Your task to perform on an android device: delete the emails in spam in the gmail app Image 0: 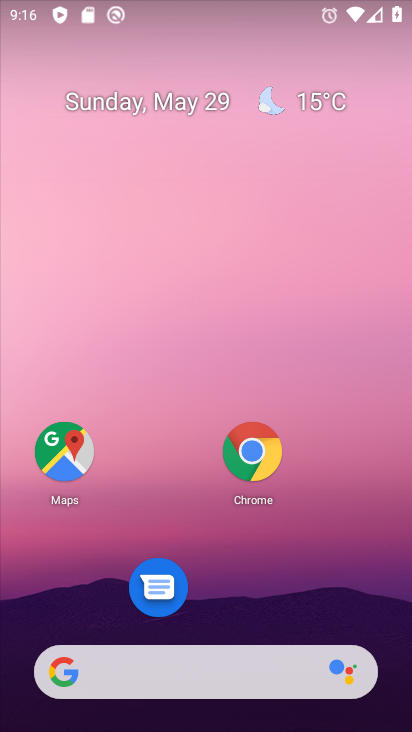
Step 0: drag from (221, 613) to (182, 102)
Your task to perform on an android device: delete the emails in spam in the gmail app Image 1: 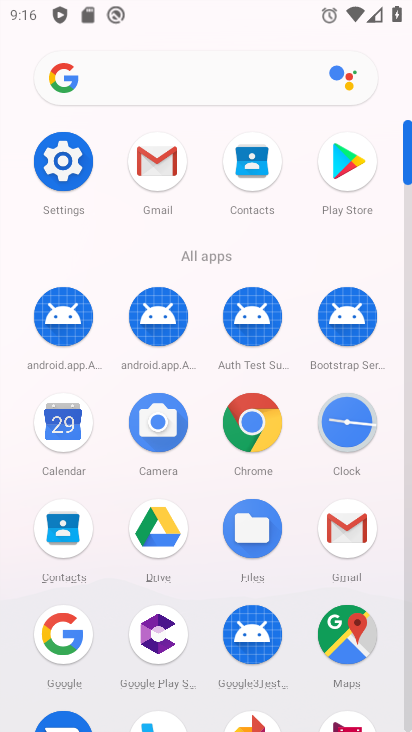
Step 1: click (152, 153)
Your task to perform on an android device: delete the emails in spam in the gmail app Image 2: 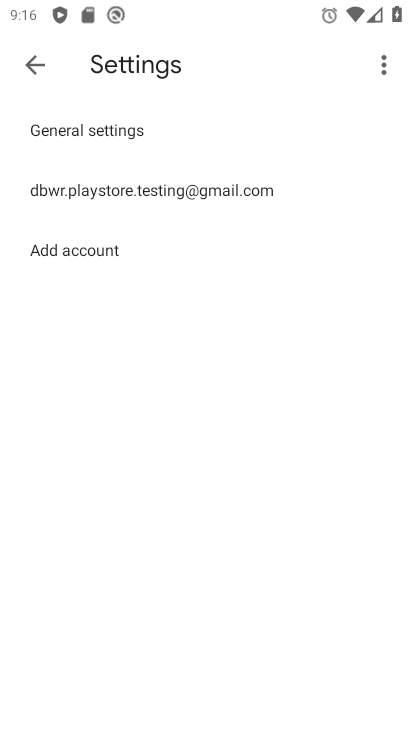
Step 2: click (44, 72)
Your task to perform on an android device: delete the emails in spam in the gmail app Image 3: 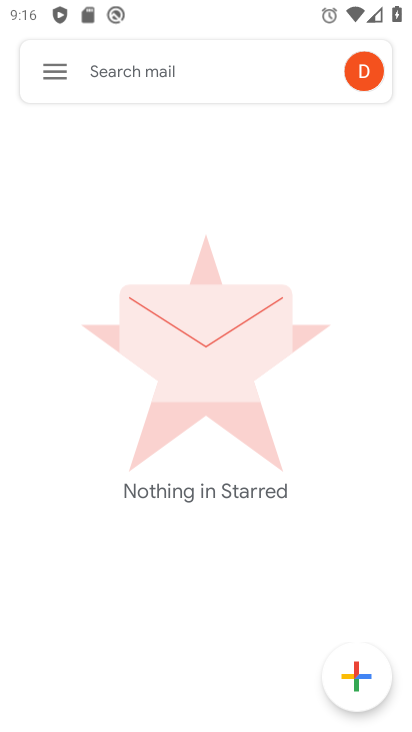
Step 3: click (57, 69)
Your task to perform on an android device: delete the emails in spam in the gmail app Image 4: 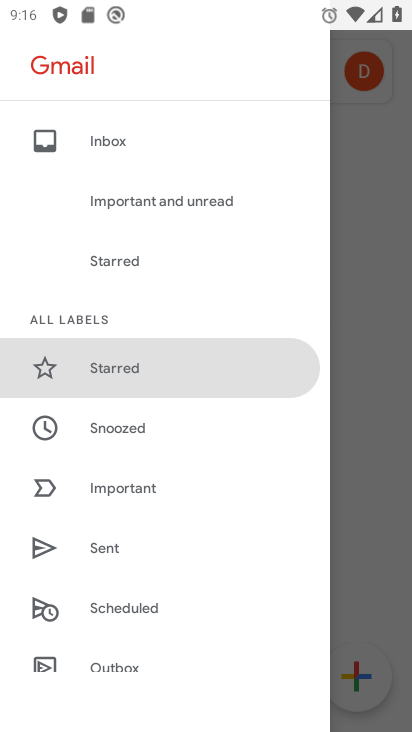
Step 4: drag from (160, 520) to (179, 139)
Your task to perform on an android device: delete the emails in spam in the gmail app Image 5: 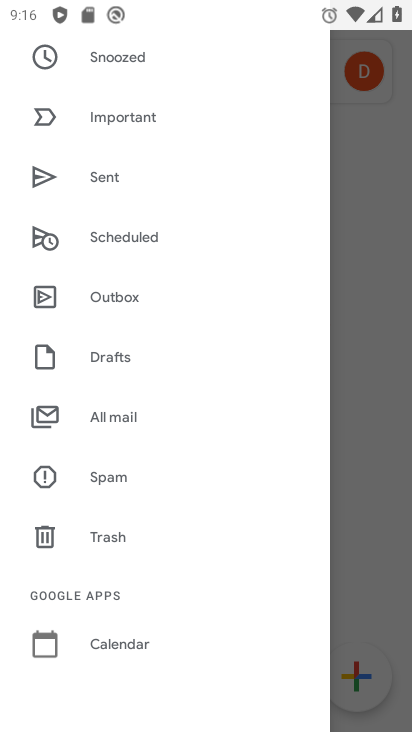
Step 5: click (65, 471)
Your task to perform on an android device: delete the emails in spam in the gmail app Image 6: 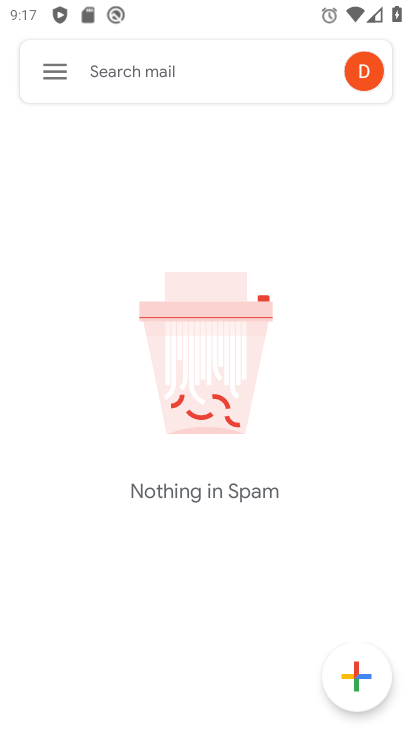
Step 6: task complete